Your task to perform on an android device: Open Chrome and go to settings Image 0: 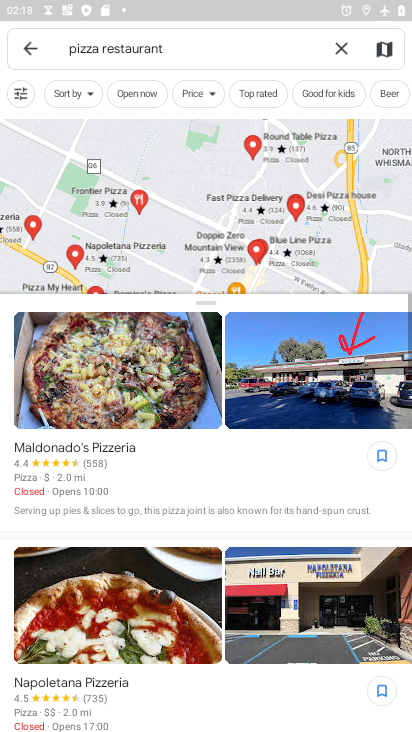
Step 0: press home button
Your task to perform on an android device: Open Chrome and go to settings Image 1: 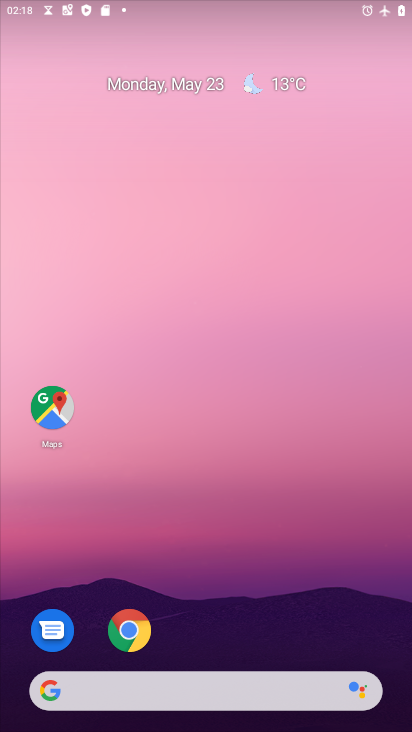
Step 1: click (136, 626)
Your task to perform on an android device: Open Chrome and go to settings Image 2: 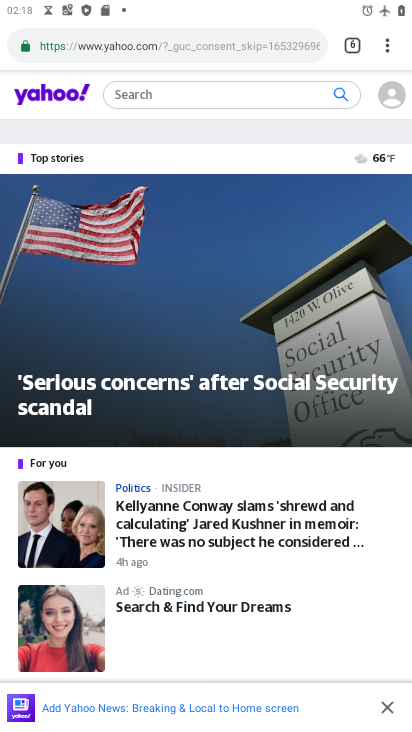
Step 2: click (391, 38)
Your task to perform on an android device: Open Chrome and go to settings Image 3: 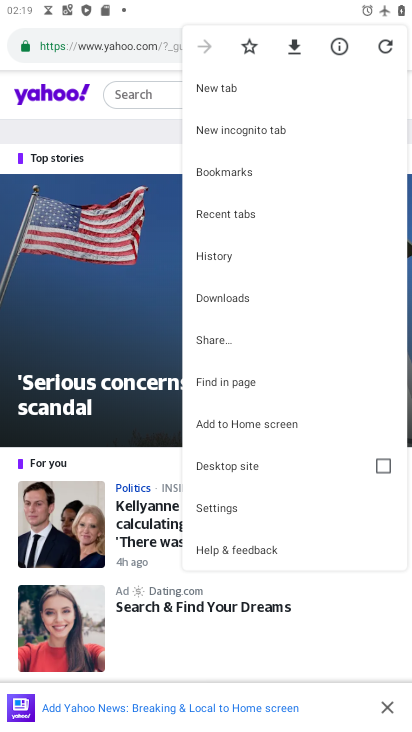
Step 3: click (249, 509)
Your task to perform on an android device: Open Chrome and go to settings Image 4: 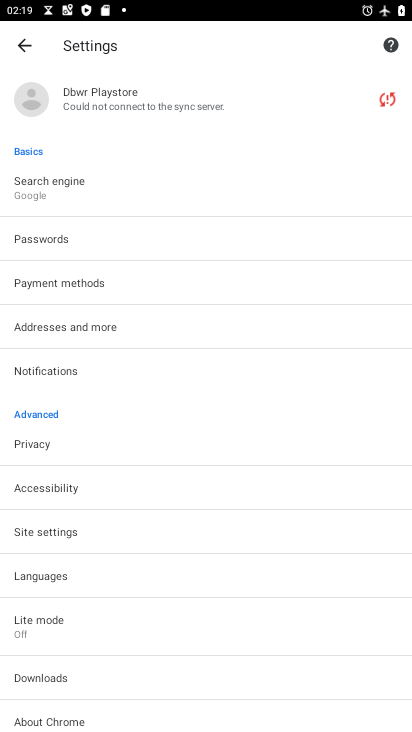
Step 4: task complete